Your task to perform on an android device: open chrome privacy settings Image 0: 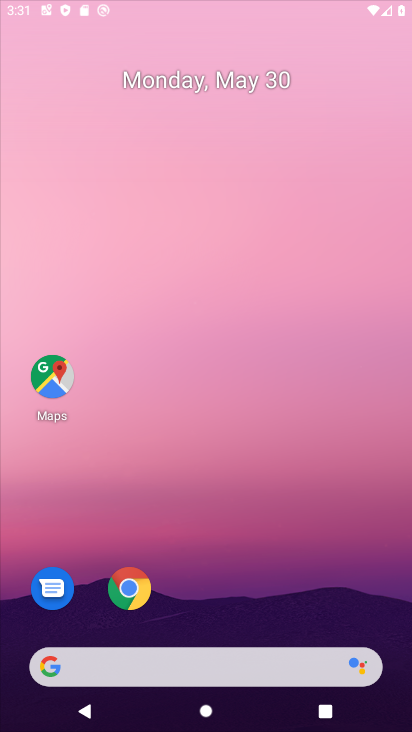
Step 0: drag from (252, 257) to (272, 11)
Your task to perform on an android device: open chrome privacy settings Image 1: 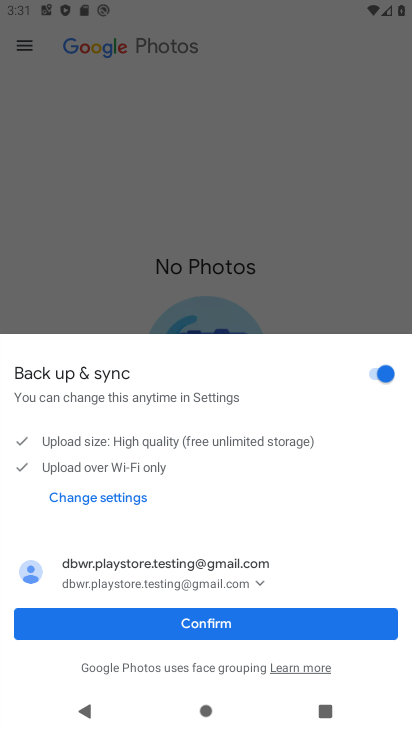
Step 1: press back button
Your task to perform on an android device: open chrome privacy settings Image 2: 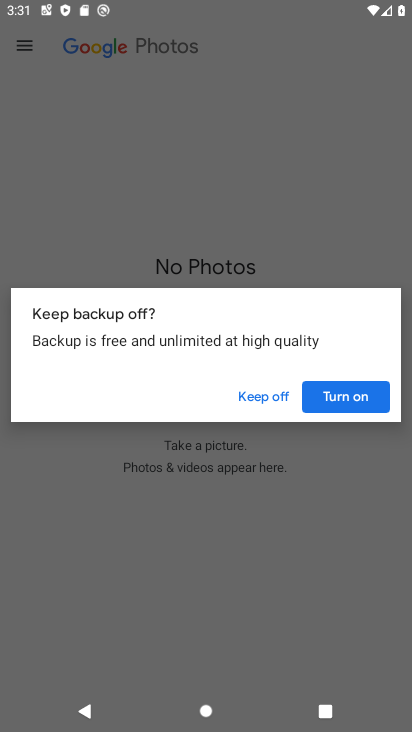
Step 2: press home button
Your task to perform on an android device: open chrome privacy settings Image 3: 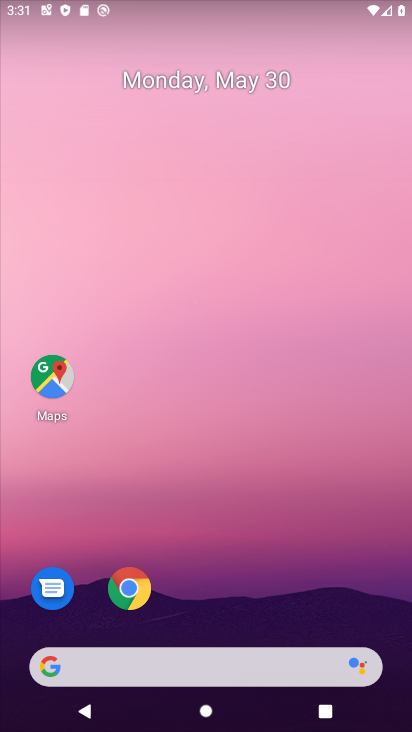
Step 3: drag from (256, 578) to (223, 23)
Your task to perform on an android device: open chrome privacy settings Image 4: 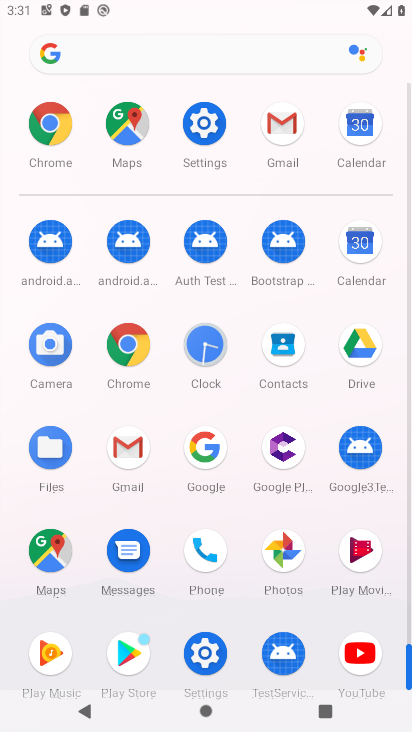
Step 4: drag from (11, 595) to (18, 281)
Your task to perform on an android device: open chrome privacy settings Image 5: 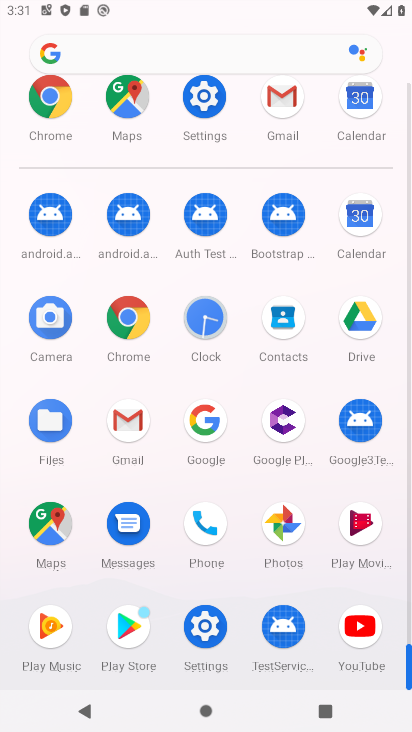
Step 5: click (125, 314)
Your task to perform on an android device: open chrome privacy settings Image 6: 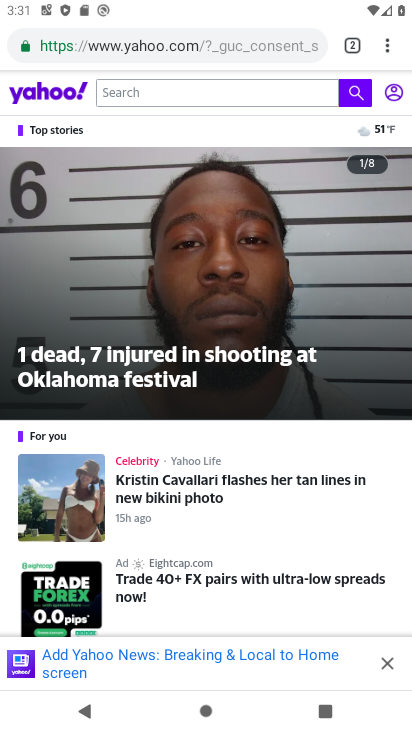
Step 6: drag from (380, 48) to (232, 539)
Your task to perform on an android device: open chrome privacy settings Image 7: 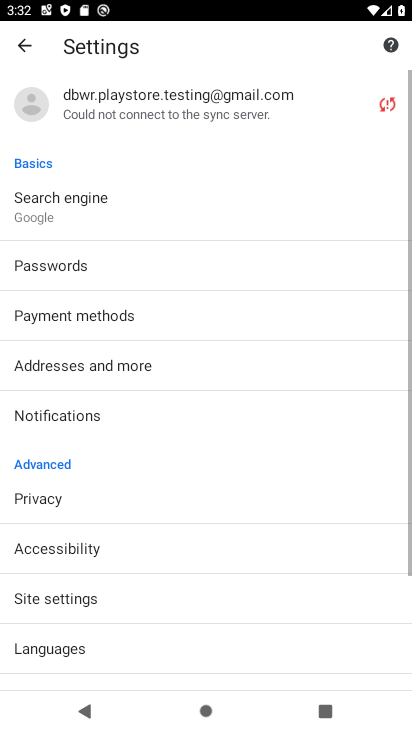
Step 7: click (52, 511)
Your task to perform on an android device: open chrome privacy settings Image 8: 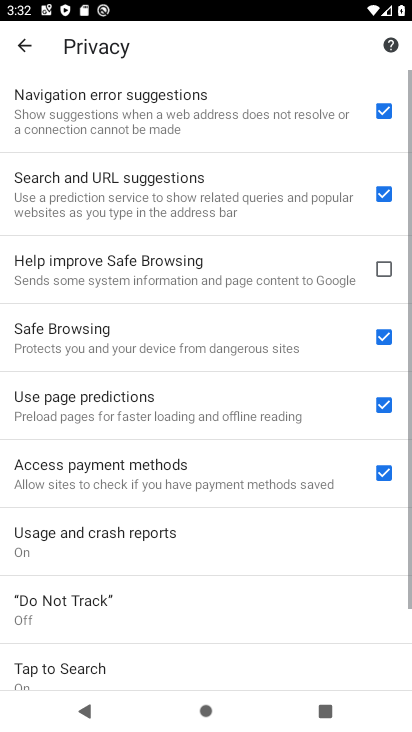
Step 8: task complete